Your task to perform on an android device: When is my next meeting? Image 0: 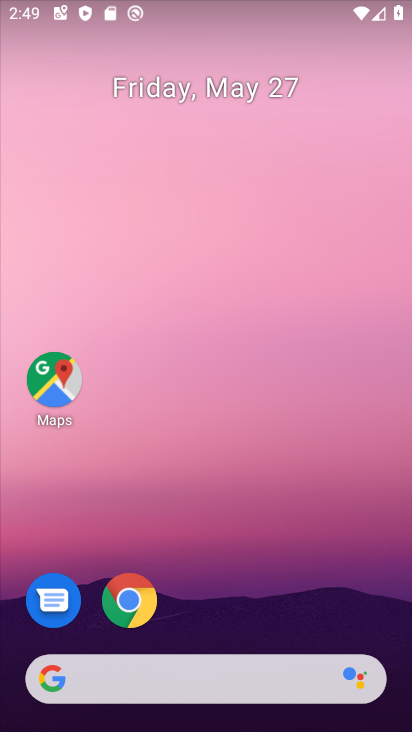
Step 0: drag from (326, 623) to (251, 161)
Your task to perform on an android device: When is my next meeting? Image 1: 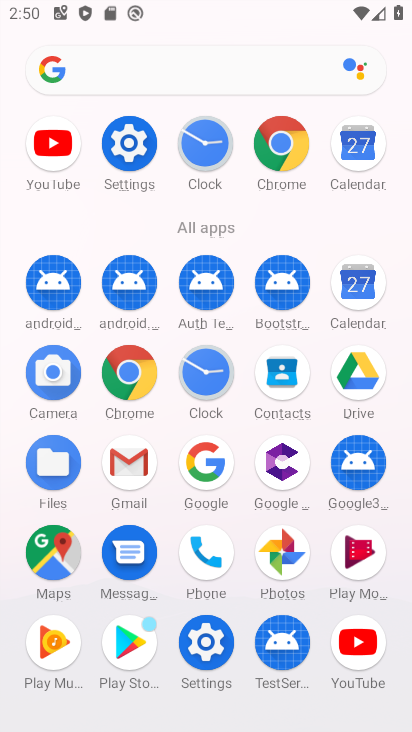
Step 1: click (372, 295)
Your task to perform on an android device: When is my next meeting? Image 2: 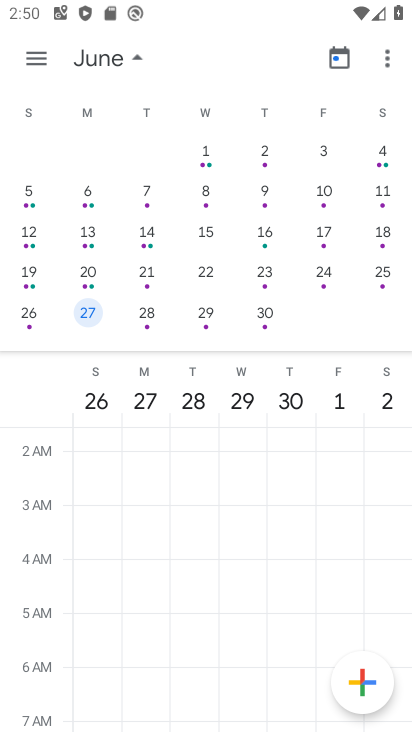
Step 2: click (39, 54)
Your task to perform on an android device: When is my next meeting? Image 3: 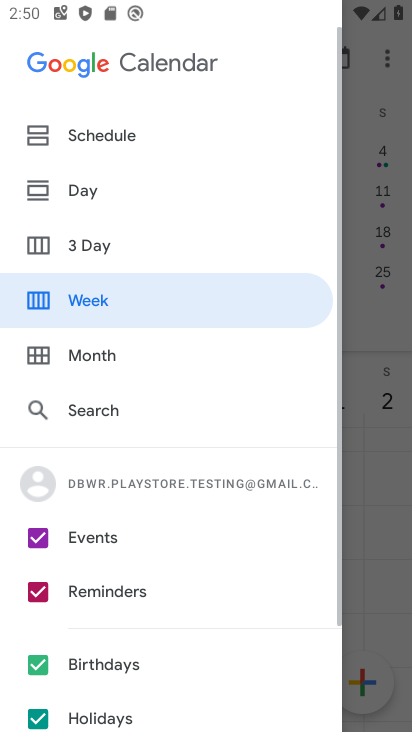
Step 3: click (94, 138)
Your task to perform on an android device: When is my next meeting? Image 4: 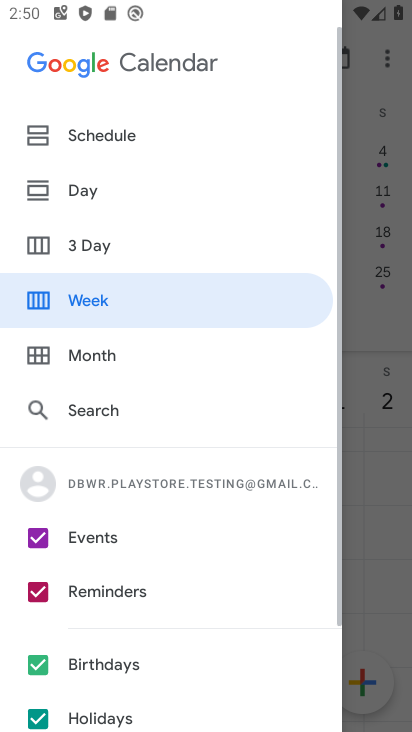
Step 4: click (112, 124)
Your task to perform on an android device: When is my next meeting? Image 5: 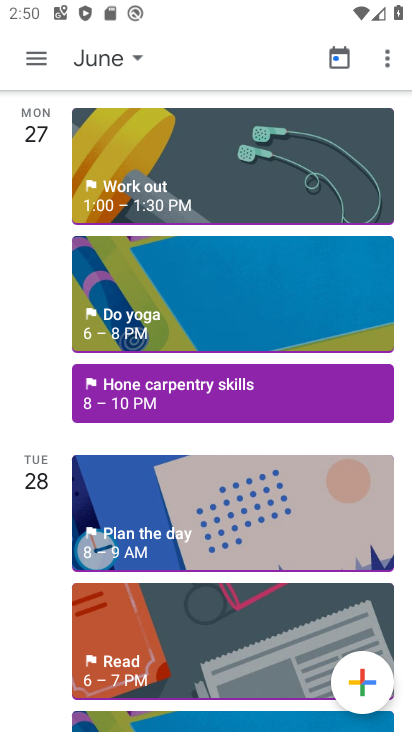
Step 5: click (121, 55)
Your task to perform on an android device: When is my next meeting? Image 6: 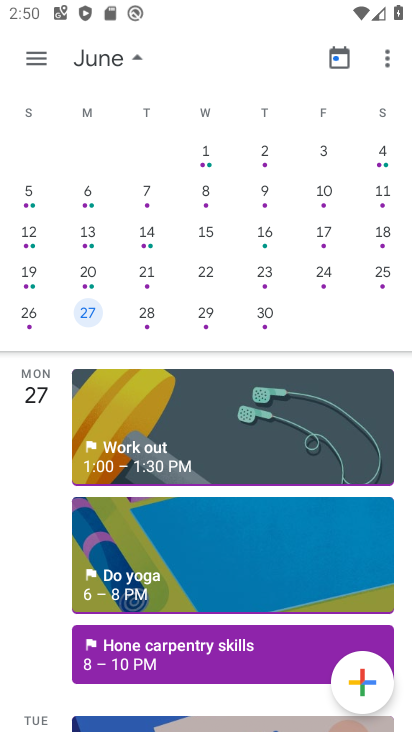
Step 6: click (23, 201)
Your task to perform on an android device: When is my next meeting? Image 7: 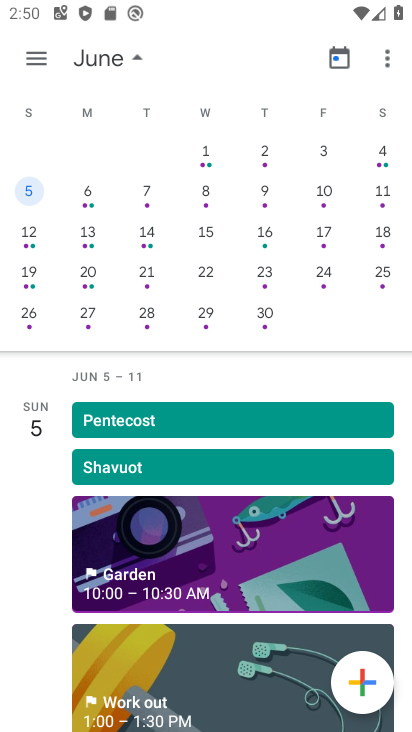
Step 7: drag from (261, 507) to (228, 16)
Your task to perform on an android device: When is my next meeting? Image 8: 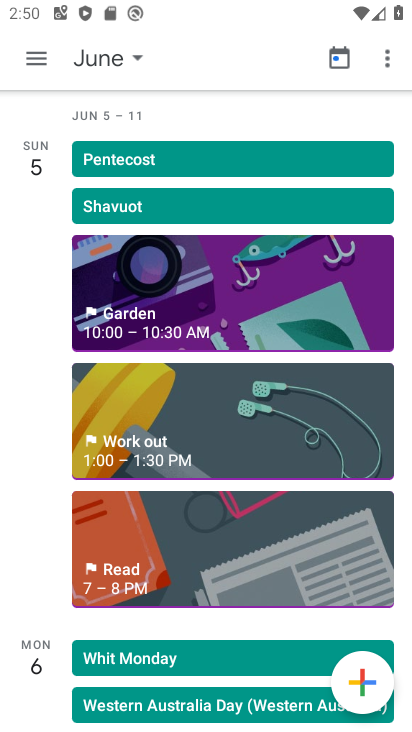
Step 8: drag from (192, 562) to (170, 213)
Your task to perform on an android device: When is my next meeting? Image 9: 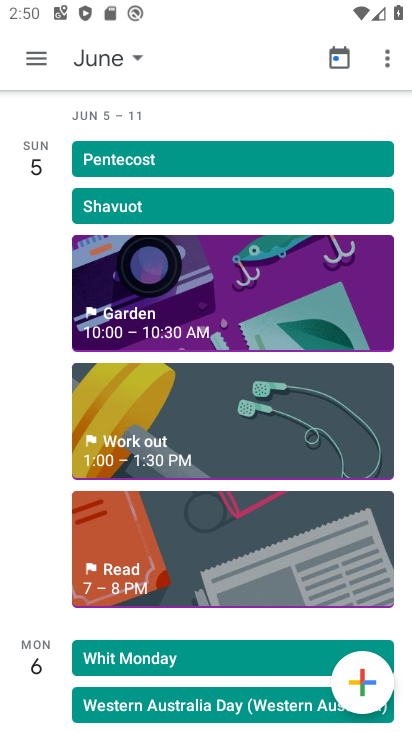
Step 9: drag from (210, 587) to (203, 80)
Your task to perform on an android device: When is my next meeting? Image 10: 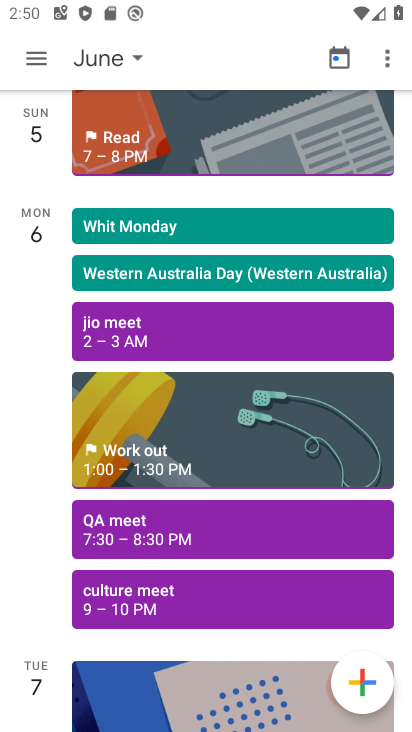
Step 10: click (131, 331)
Your task to perform on an android device: When is my next meeting? Image 11: 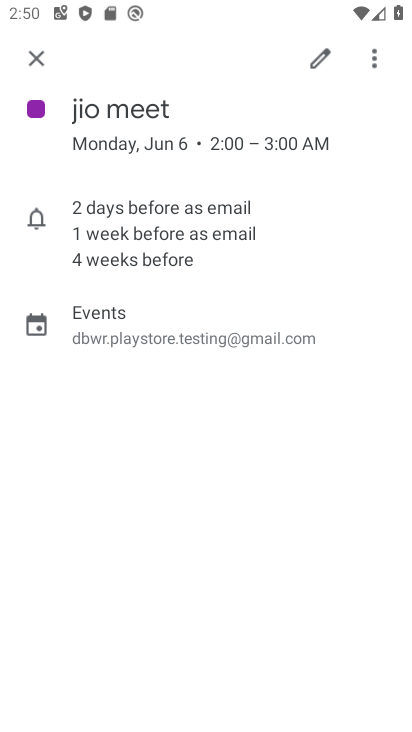
Step 11: task complete